Your task to perform on an android device: empty trash in google photos Image 0: 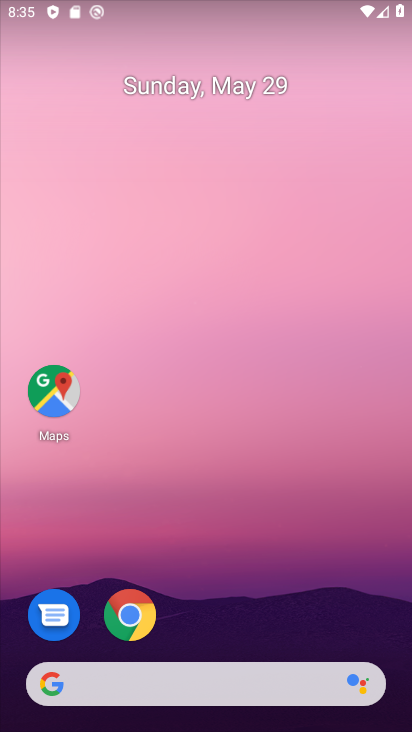
Step 0: drag from (201, 643) to (147, 28)
Your task to perform on an android device: empty trash in google photos Image 1: 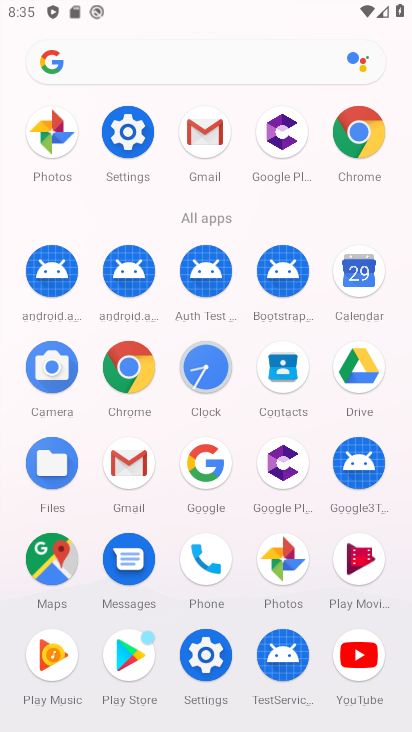
Step 1: click (60, 134)
Your task to perform on an android device: empty trash in google photos Image 2: 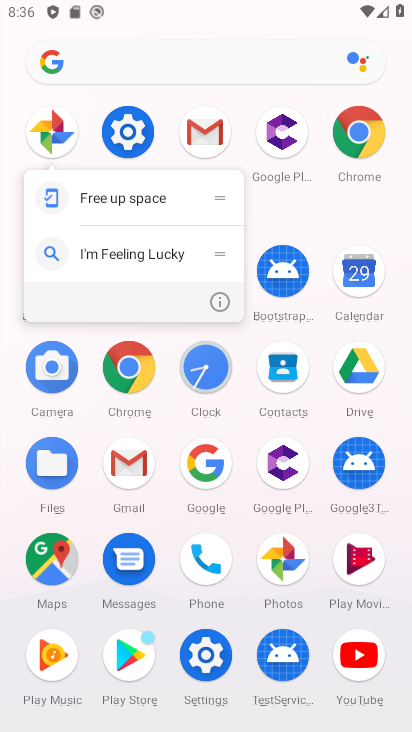
Step 2: click (39, 131)
Your task to perform on an android device: empty trash in google photos Image 3: 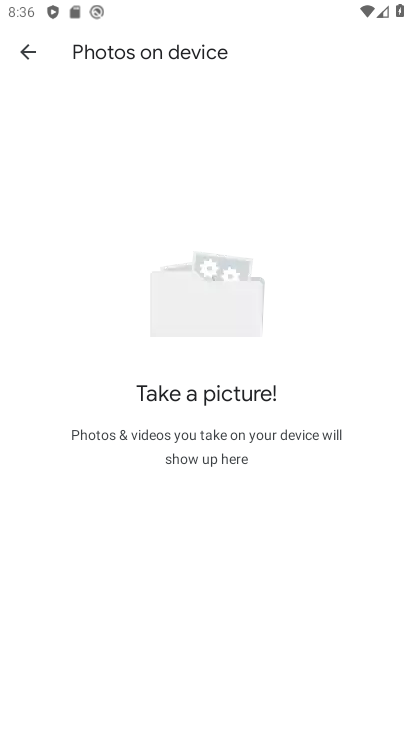
Step 3: click (26, 50)
Your task to perform on an android device: empty trash in google photos Image 4: 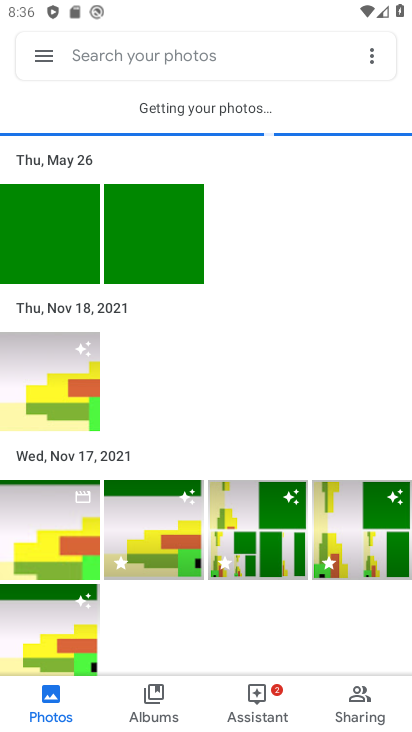
Step 4: click (46, 64)
Your task to perform on an android device: empty trash in google photos Image 5: 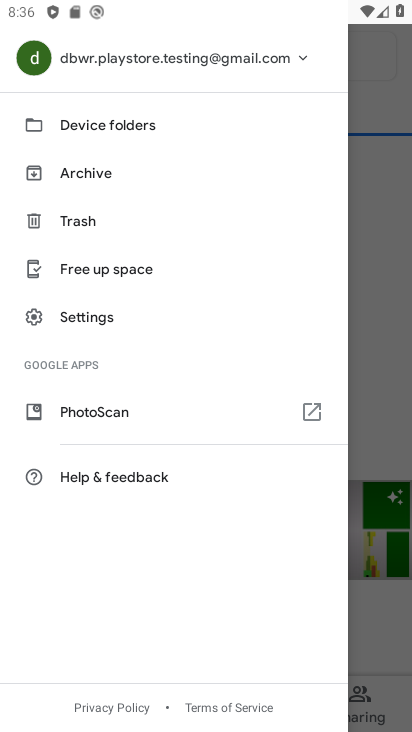
Step 5: click (97, 223)
Your task to perform on an android device: empty trash in google photos Image 6: 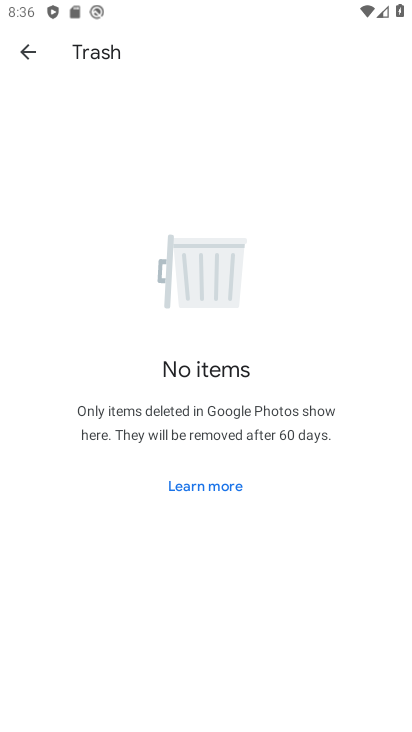
Step 6: task complete